Your task to perform on an android device: turn on bluetooth scan Image 0: 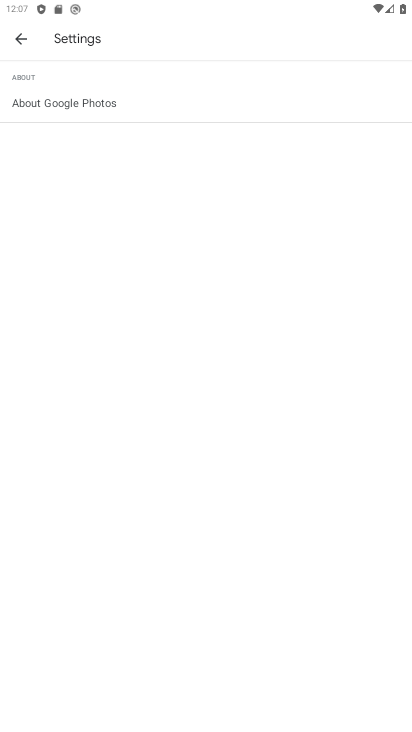
Step 0: press home button
Your task to perform on an android device: turn on bluetooth scan Image 1: 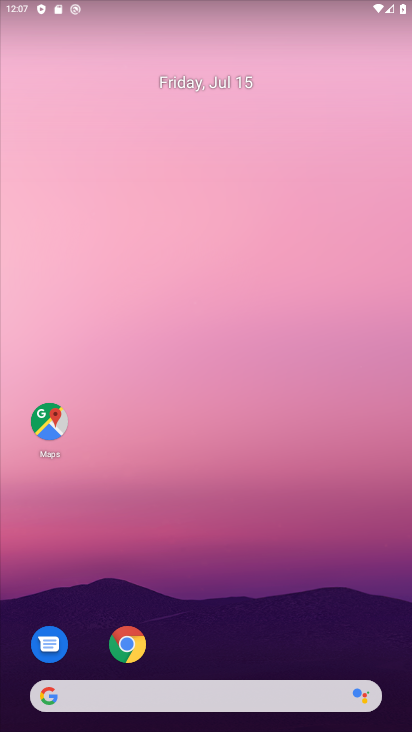
Step 1: drag from (240, 673) to (245, 203)
Your task to perform on an android device: turn on bluetooth scan Image 2: 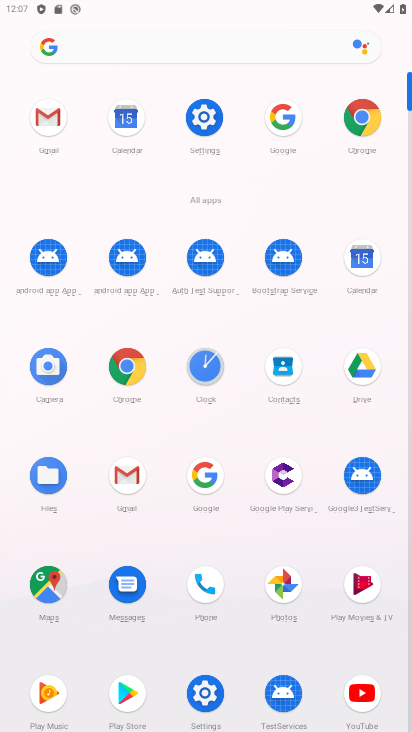
Step 2: click (207, 118)
Your task to perform on an android device: turn on bluetooth scan Image 3: 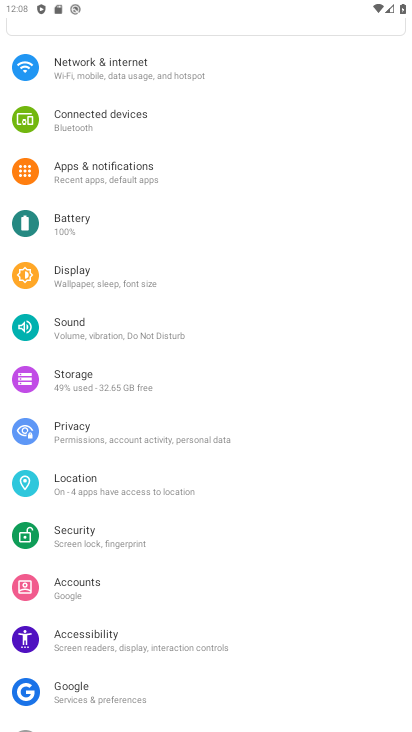
Step 3: click (80, 481)
Your task to perform on an android device: turn on bluetooth scan Image 4: 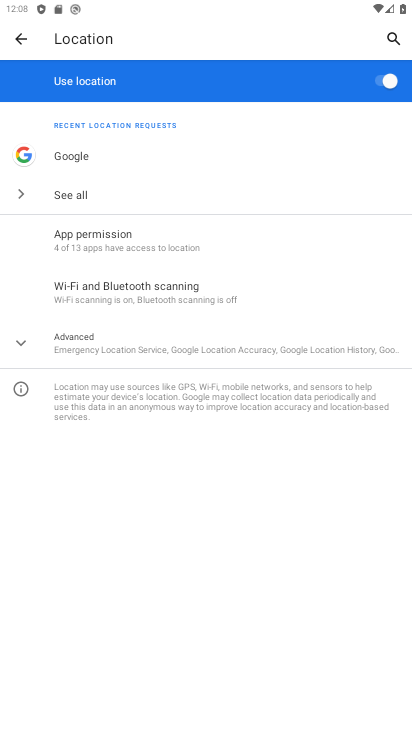
Step 4: click (111, 287)
Your task to perform on an android device: turn on bluetooth scan Image 5: 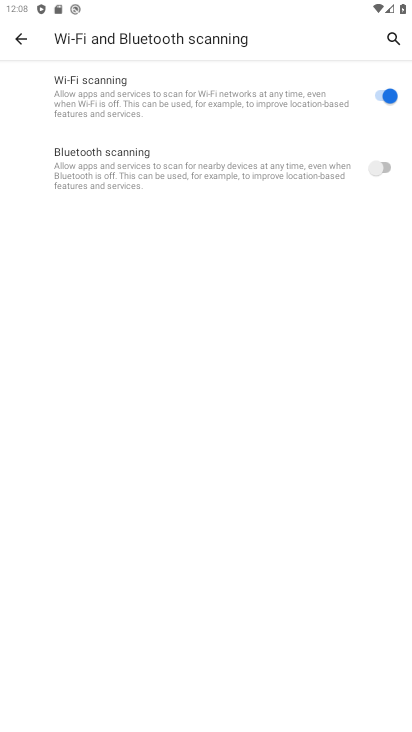
Step 5: click (384, 169)
Your task to perform on an android device: turn on bluetooth scan Image 6: 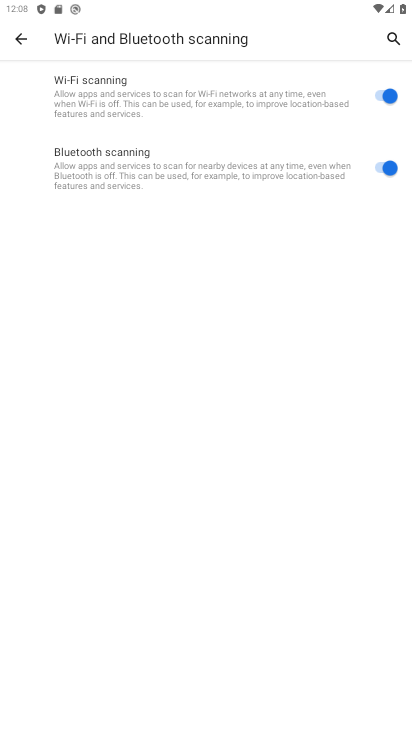
Step 6: task complete